Your task to perform on an android device: turn smart compose on in the gmail app Image 0: 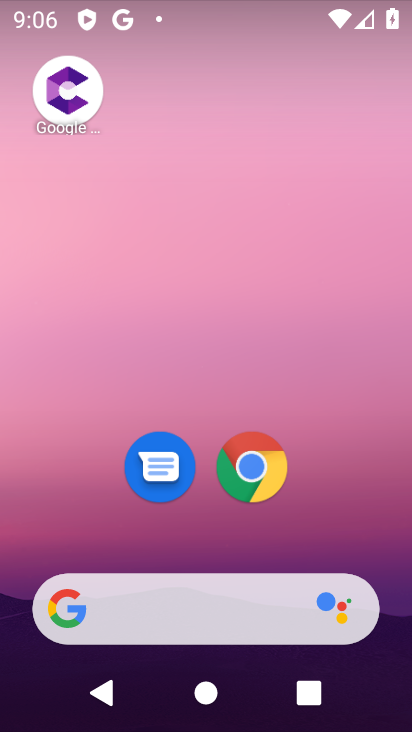
Step 0: drag from (353, 545) to (0, 134)
Your task to perform on an android device: turn smart compose on in the gmail app Image 1: 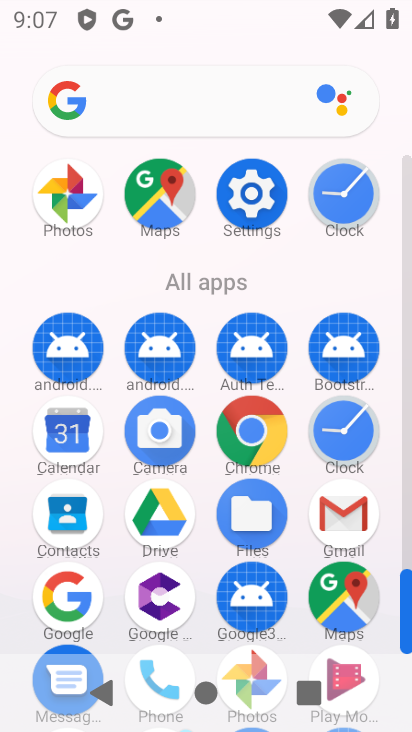
Step 1: drag from (10, 538) to (0, 181)
Your task to perform on an android device: turn smart compose on in the gmail app Image 2: 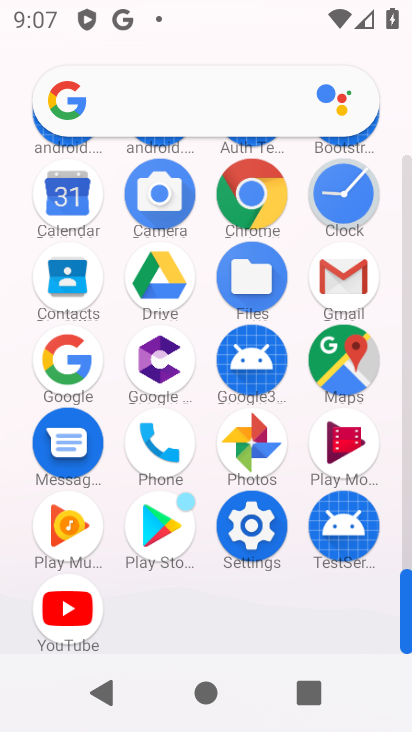
Step 2: click (342, 271)
Your task to perform on an android device: turn smart compose on in the gmail app Image 3: 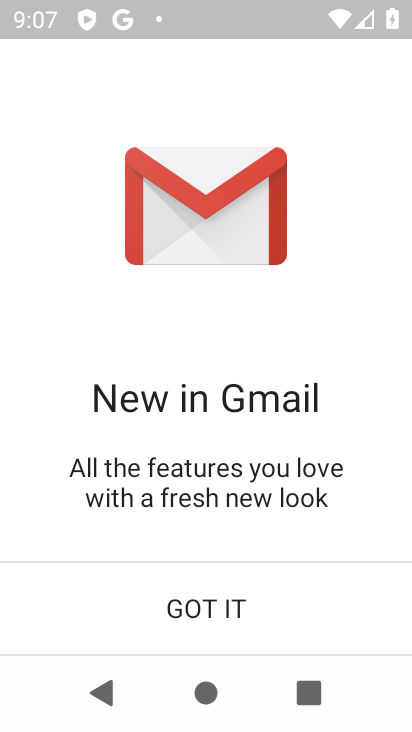
Step 3: click (232, 604)
Your task to perform on an android device: turn smart compose on in the gmail app Image 4: 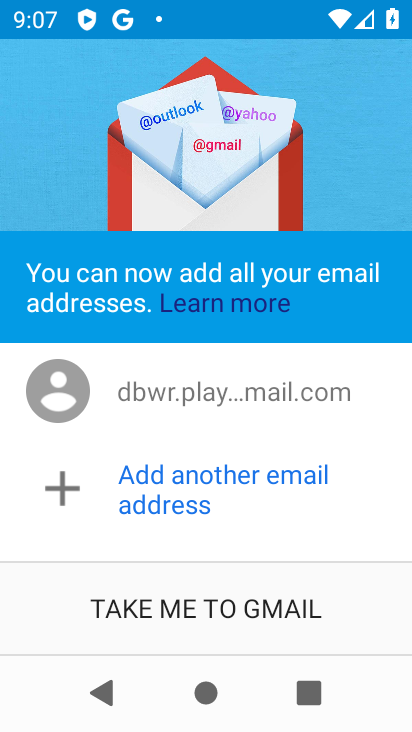
Step 4: click (244, 609)
Your task to perform on an android device: turn smart compose on in the gmail app Image 5: 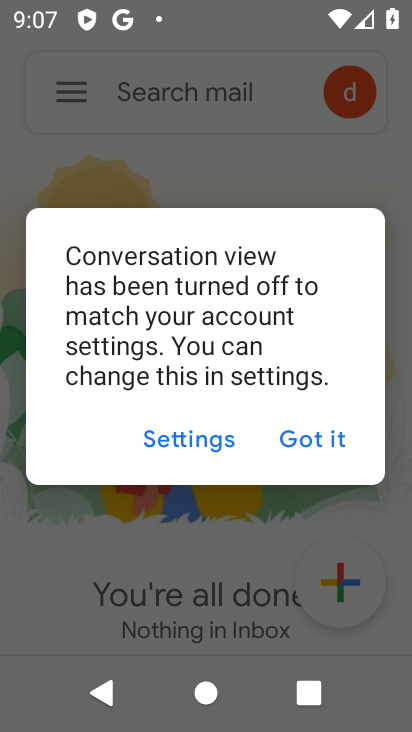
Step 5: click (313, 435)
Your task to perform on an android device: turn smart compose on in the gmail app Image 6: 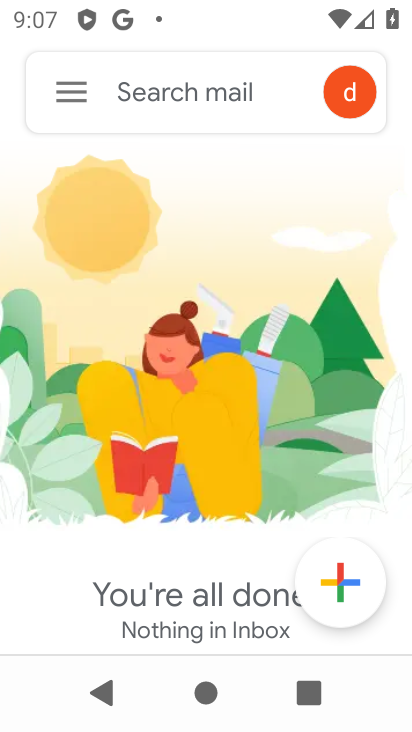
Step 6: click (78, 89)
Your task to perform on an android device: turn smart compose on in the gmail app Image 7: 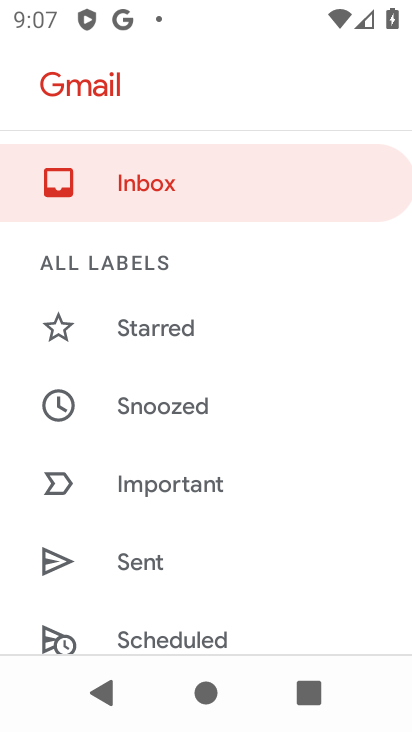
Step 7: drag from (271, 587) to (290, 137)
Your task to perform on an android device: turn smart compose on in the gmail app Image 8: 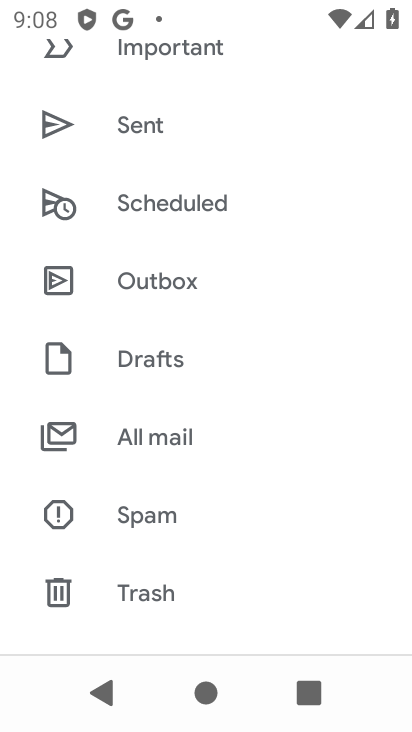
Step 8: drag from (219, 570) to (318, 61)
Your task to perform on an android device: turn smart compose on in the gmail app Image 9: 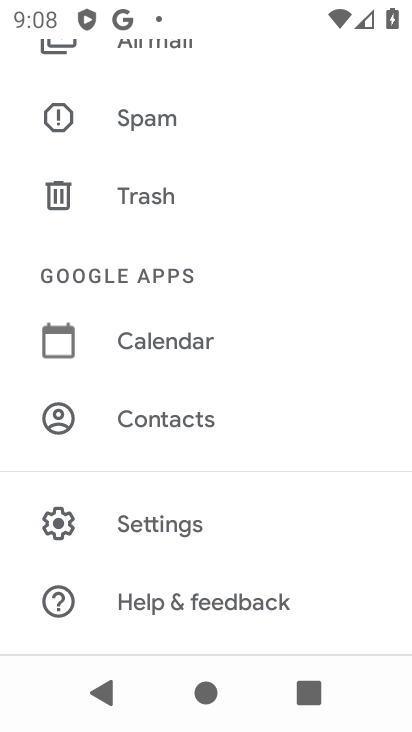
Step 9: click (169, 527)
Your task to perform on an android device: turn smart compose on in the gmail app Image 10: 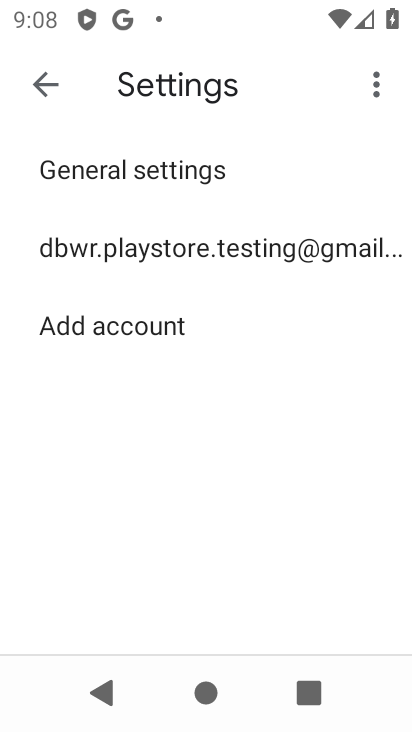
Step 10: click (202, 255)
Your task to perform on an android device: turn smart compose on in the gmail app Image 11: 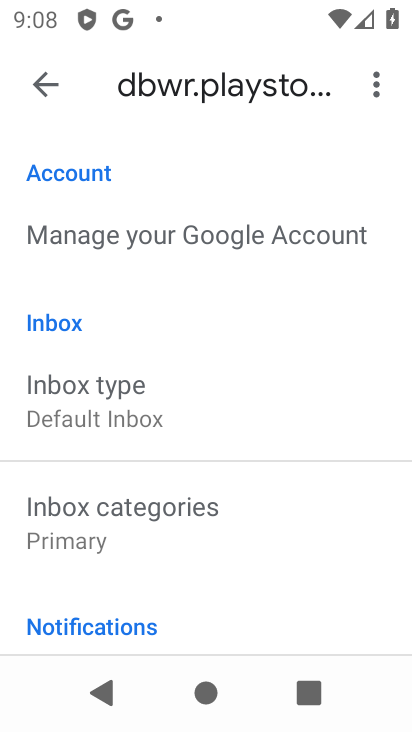
Step 11: task complete